Your task to perform on an android device: Set the phone to "Do not disturb". Image 0: 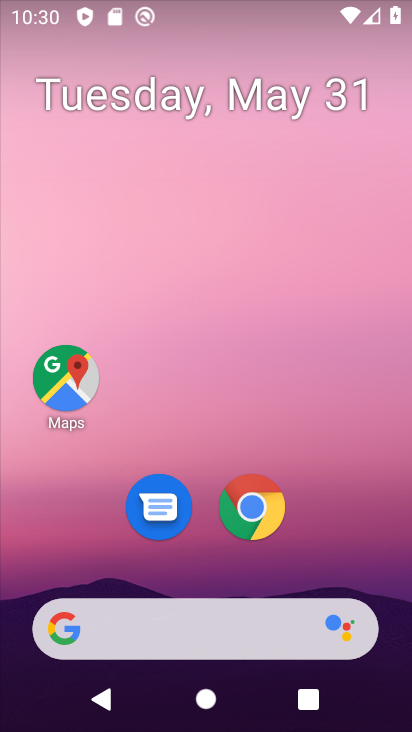
Step 0: drag from (102, 533) to (227, 172)
Your task to perform on an android device: Set the phone to "Do not disturb". Image 1: 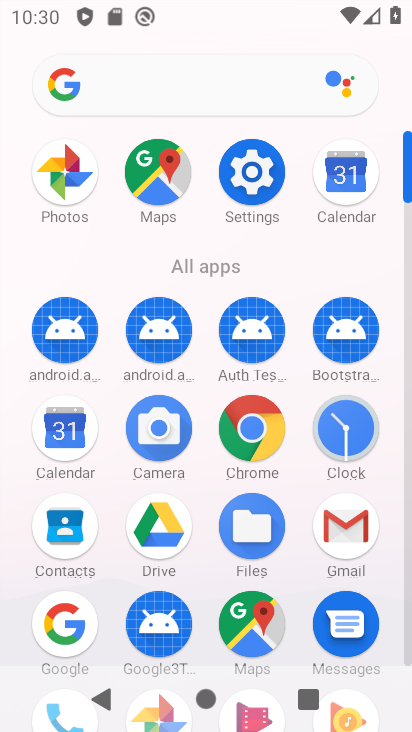
Step 1: drag from (207, 622) to (280, 346)
Your task to perform on an android device: Set the phone to "Do not disturb". Image 2: 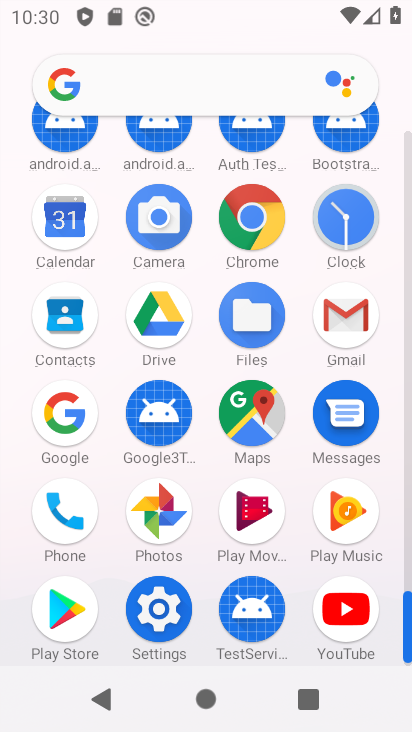
Step 2: click (155, 620)
Your task to perform on an android device: Set the phone to "Do not disturb". Image 3: 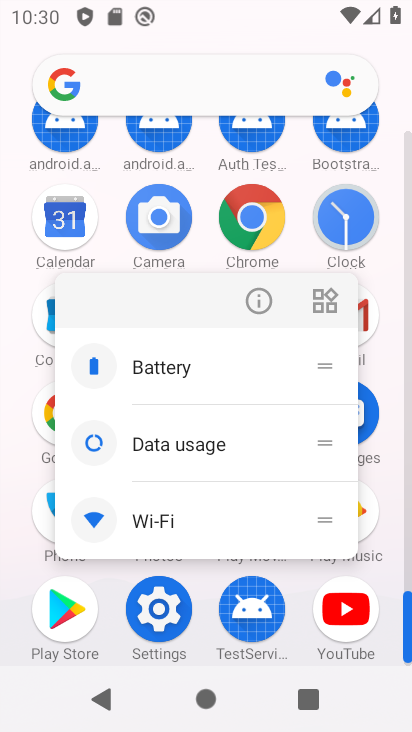
Step 3: click (156, 626)
Your task to perform on an android device: Set the phone to "Do not disturb". Image 4: 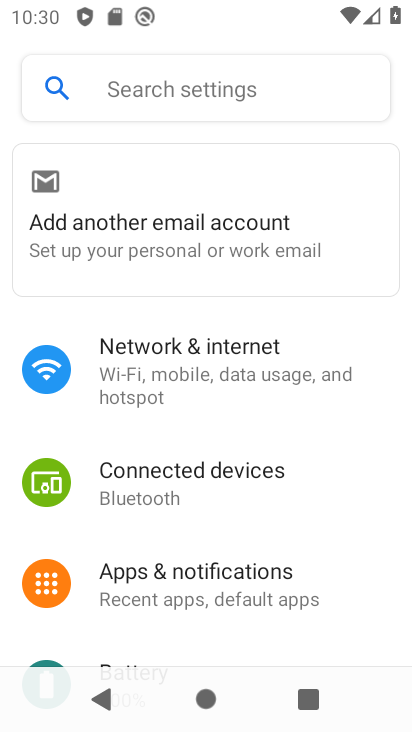
Step 4: drag from (167, 605) to (253, 298)
Your task to perform on an android device: Set the phone to "Do not disturb". Image 5: 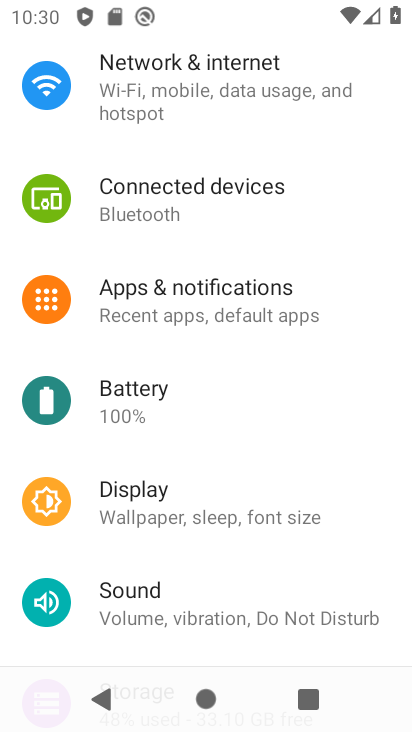
Step 5: click (244, 303)
Your task to perform on an android device: Set the phone to "Do not disturb". Image 6: 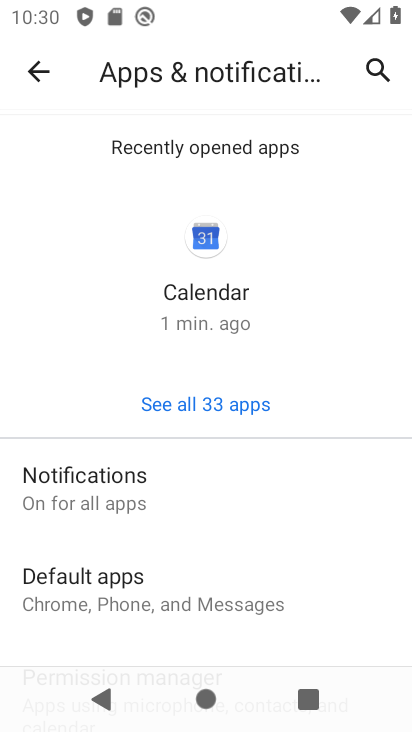
Step 6: click (183, 513)
Your task to perform on an android device: Set the phone to "Do not disturb". Image 7: 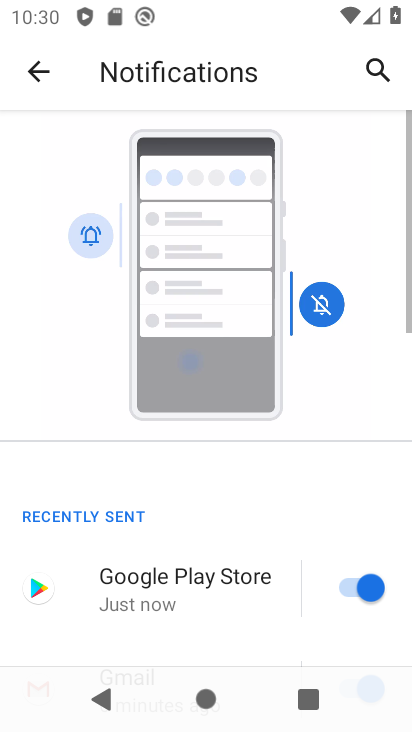
Step 7: drag from (83, 600) to (291, 26)
Your task to perform on an android device: Set the phone to "Do not disturb". Image 8: 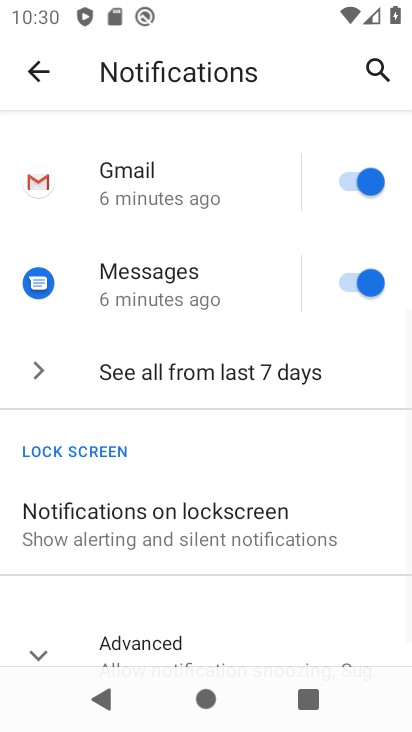
Step 8: drag from (197, 583) to (278, 224)
Your task to perform on an android device: Set the phone to "Do not disturb". Image 9: 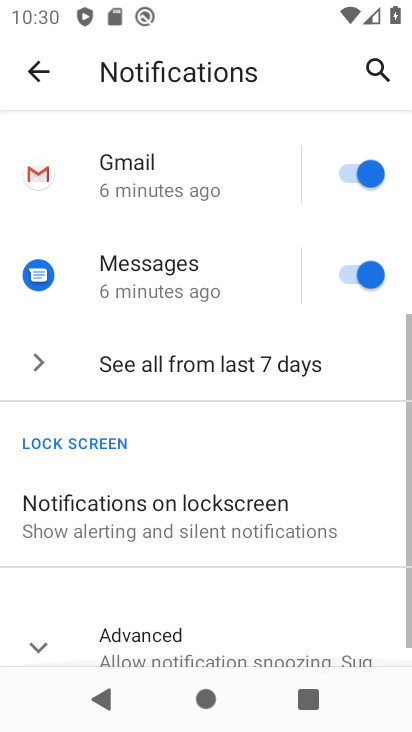
Step 9: click (176, 631)
Your task to perform on an android device: Set the phone to "Do not disturb". Image 10: 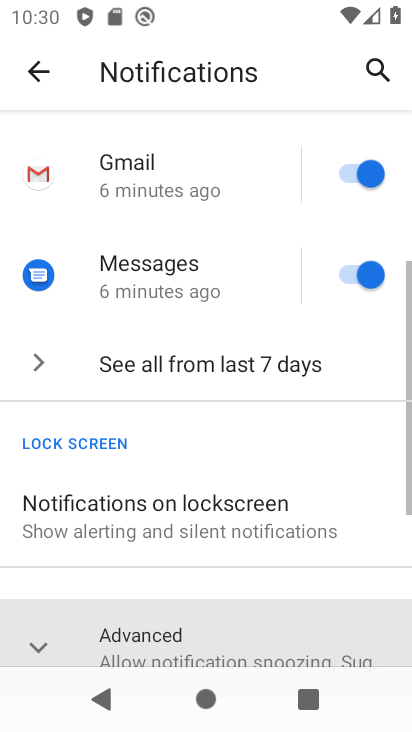
Step 10: drag from (181, 622) to (337, 6)
Your task to perform on an android device: Set the phone to "Do not disturb". Image 11: 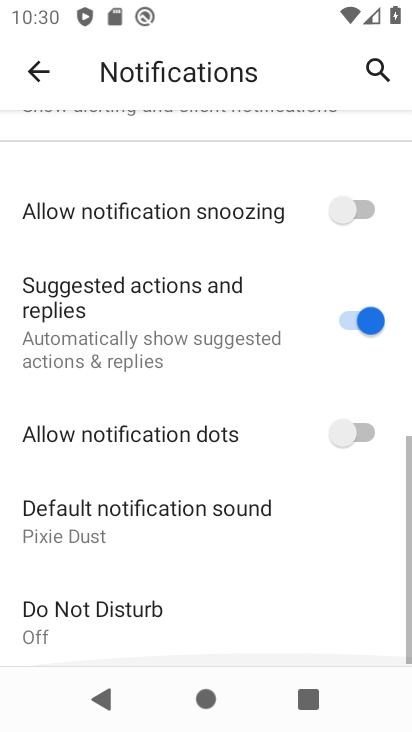
Step 11: drag from (211, 630) to (289, 245)
Your task to perform on an android device: Set the phone to "Do not disturb". Image 12: 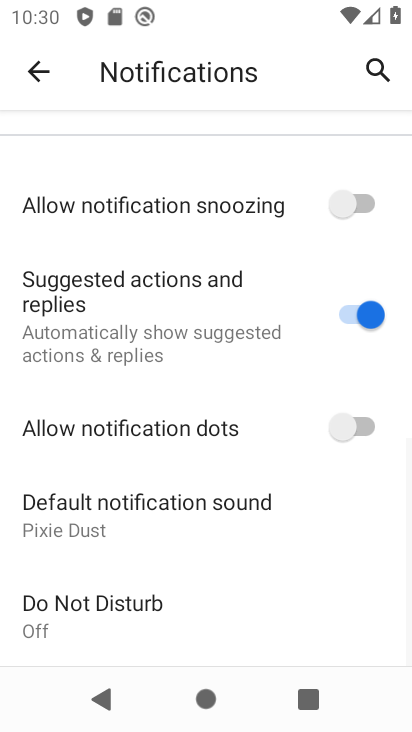
Step 12: click (150, 636)
Your task to perform on an android device: Set the phone to "Do not disturb". Image 13: 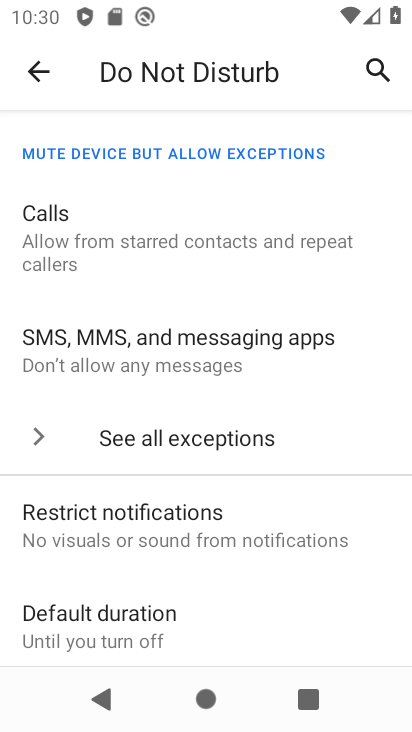
Step 13: drag from (146, 620) to (244, 13)
Your task to perform on an android device: Set the phone to "Do not disturb". Image 14: 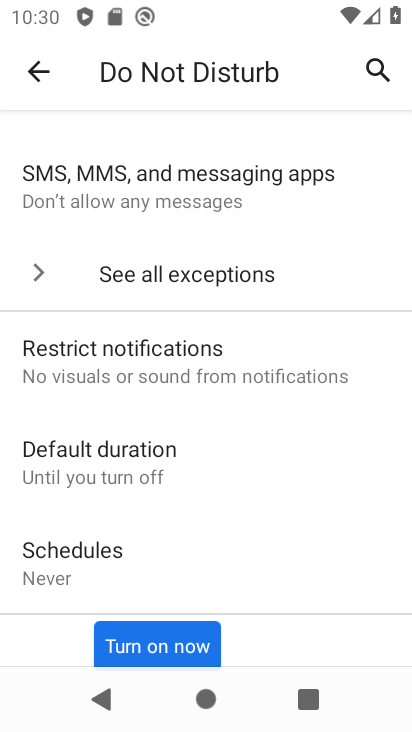
Step 14: click (139, 645)
Your task to perform on an android device: Set the phone to "Do not disturb". Image 15: 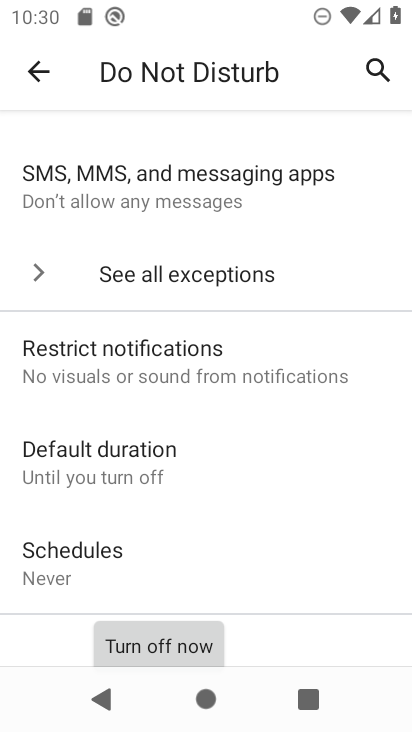
Step 15: task complete